Your task to perform on an android device: turn on data saver in the chrome app Image 0: 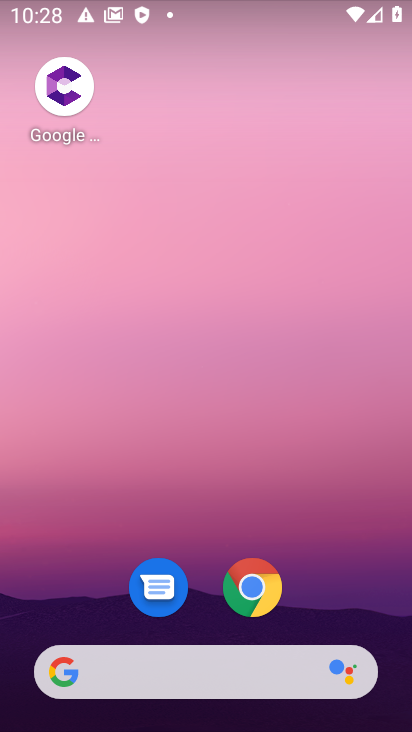
Step 0: click (254, 579)
Your task to perform on an android device: turn on data saver in the chrome app Image 1: 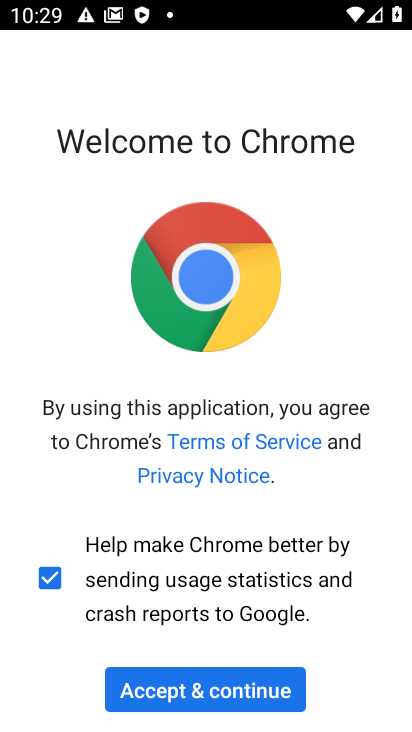
Step 1: click (204, 691)
Your task to perform on an android device: turn on data saver in the chrome app Image 2: 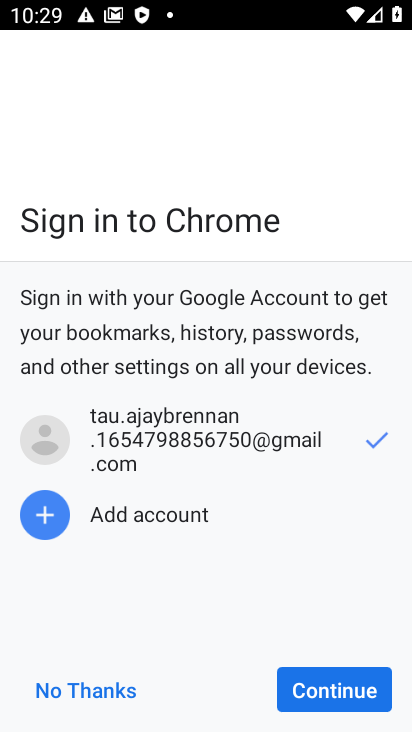
Step 2: click (328, 691)
Your task to perform on an android device: turn on data saver in the chrome app Image 3: 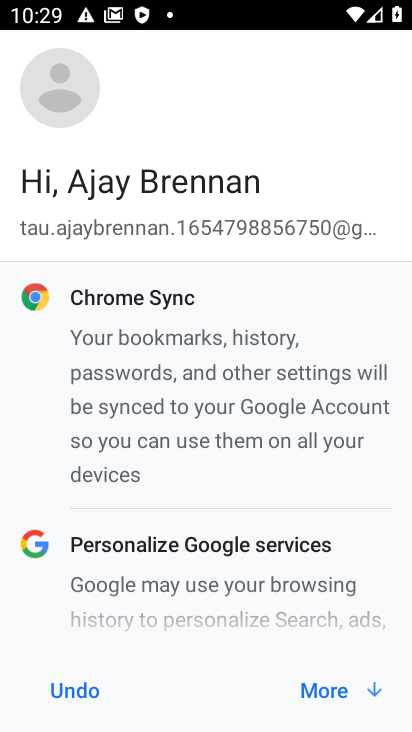
Step 3: click (354, 702)
Your task to perform on an android device: turn on data saver in the chrome app Image 4: 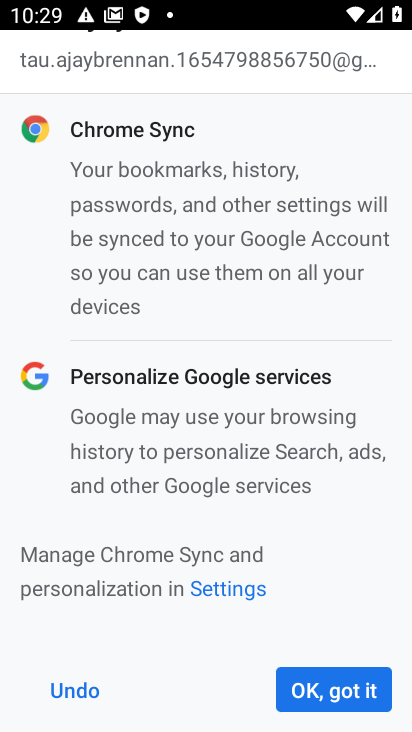
Step 4: click (343, 700)
Your task to perform on an android device: turn on data saver in the chrome app Image 5: 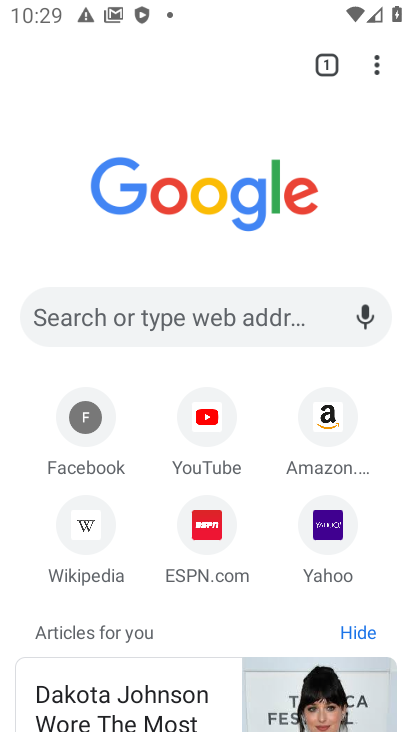
Step 5: click (377, 71)
Your task to perform on an android device: turn on data saver in the chrome app Image 6: 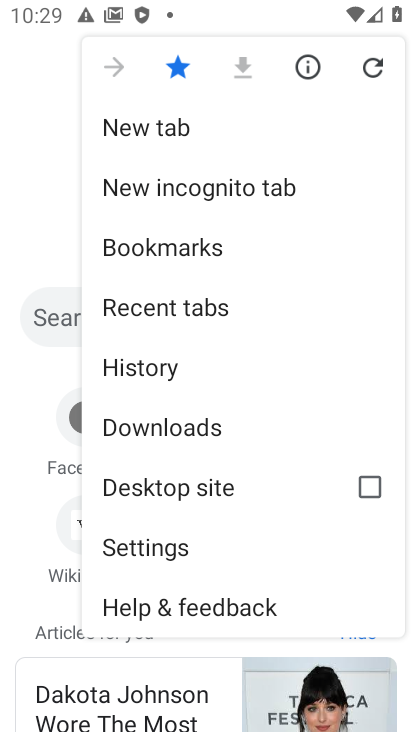
Step 6: click (148, 544)
Your task to perform on an android device: turn on data saver in the chrome app Image 7: 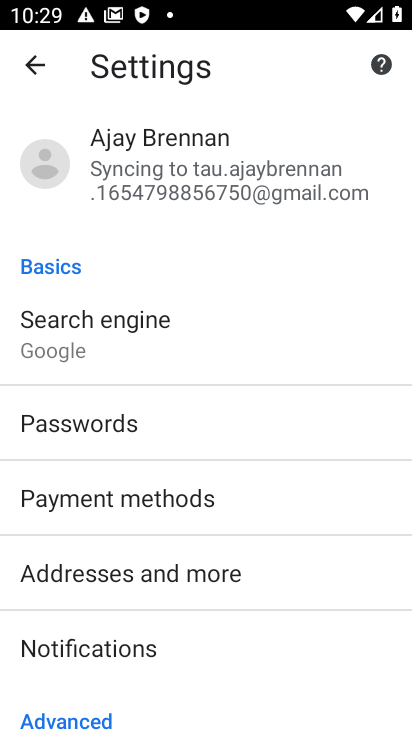
Step 7: drag from (172, 670) to (213, 151)
Your task to perform on an android device: turn on data saver in the chrome app Image 8: 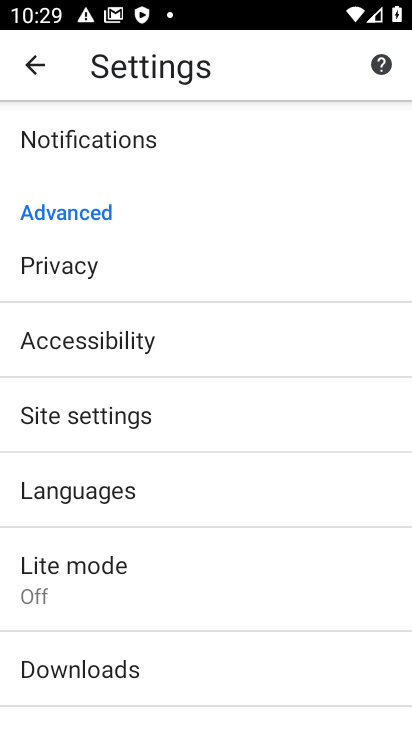
Step 8: click (109, 585)
Your task to perform on an android device: turn on data saver in the chrome app Image 9: 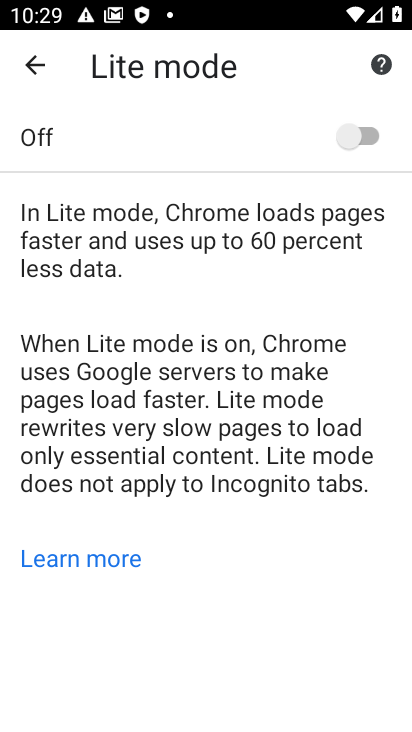
Step 9: click (371, 131)
Your task to perform on an android device: turn on data saver in the chrome app Image 10: 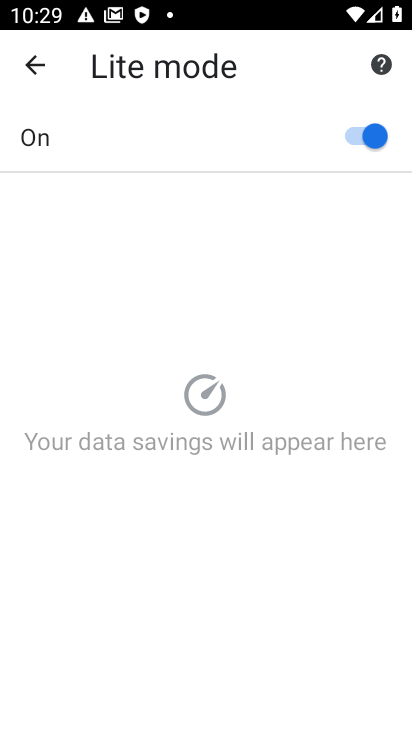
Step 10: task complete